Your task to perform on an android device: Open Wikipedia Image 0: 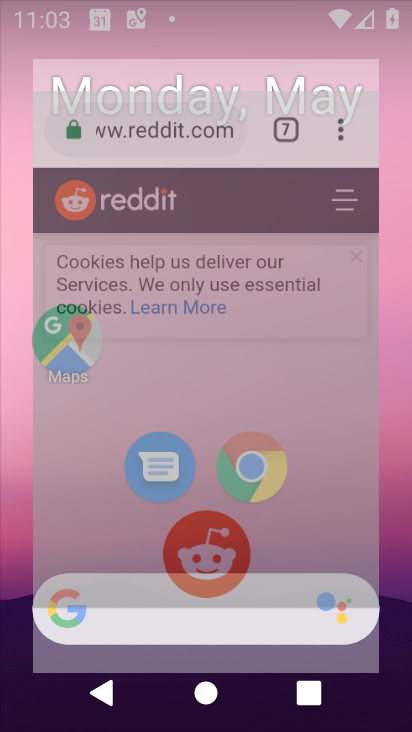
Step 0: drag from (261, 653) to (175, 105)
Your task to perform on an android device: Open Wikipedia Image 1: 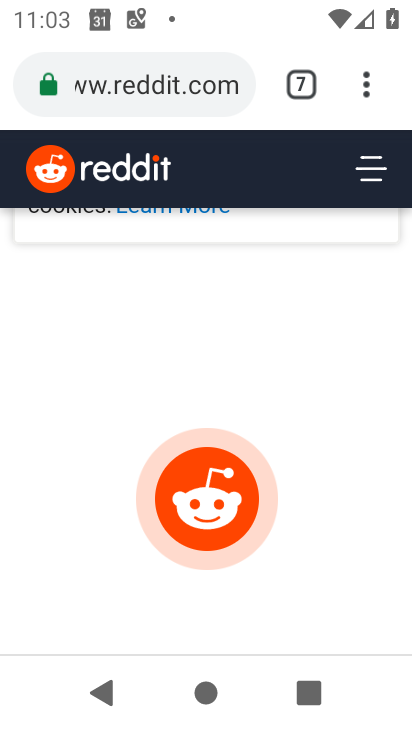
Step 1: press back button
Your task to perform on an android device: Open Wikipedia Image 2: 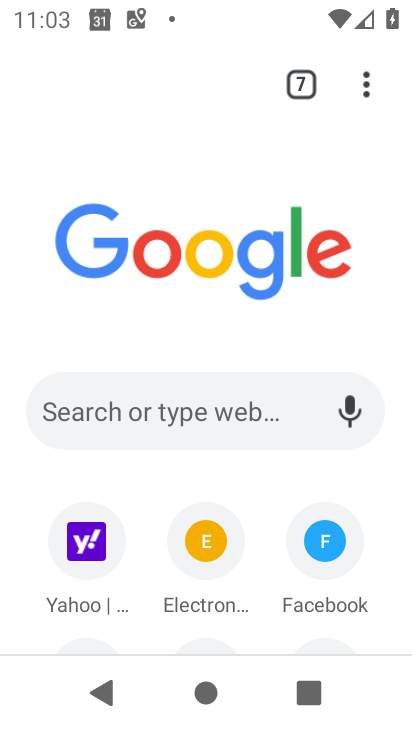
Step 2: drag from (354, 90) to (57, 155)
Your task to perform on an android device: Open Wikipedia Image 3: 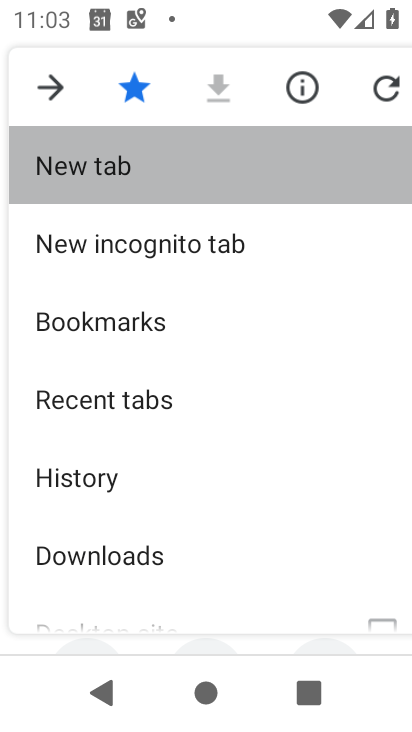
Step 3: click (57, 155)
Your task to perform on an android device: Open Wikipedia Image 4: 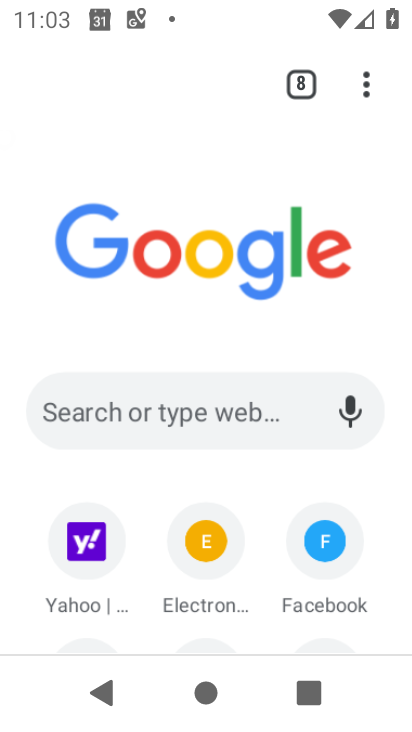
Step 4: click (60, 155)
Your task to perform on an android device: Open Wikipedia Image 5: 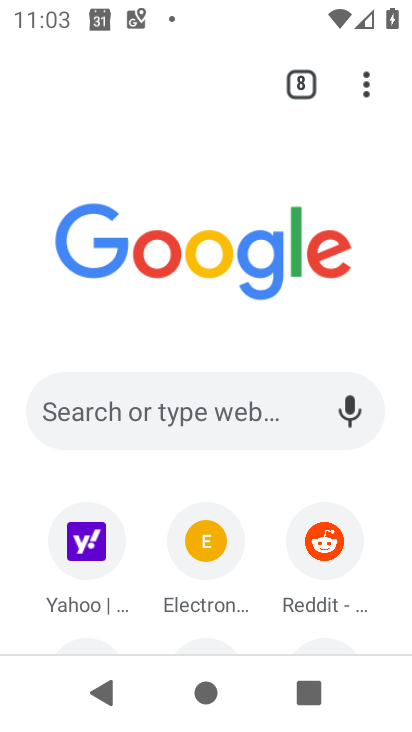
Step 5: drag from (263, 518) to (223, 170)
Your task to perform on an android device: Open Wikipedia Image 6: 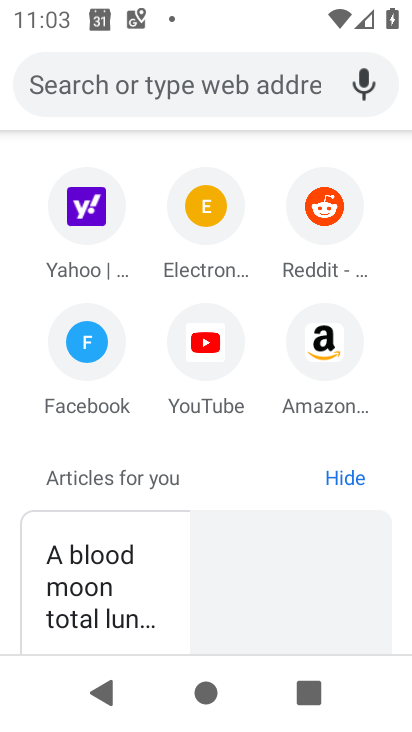
Step 6: drag from (271, 496) to (234, 179)
Your task to perform on an android device: Open Wikipedia Image 7: 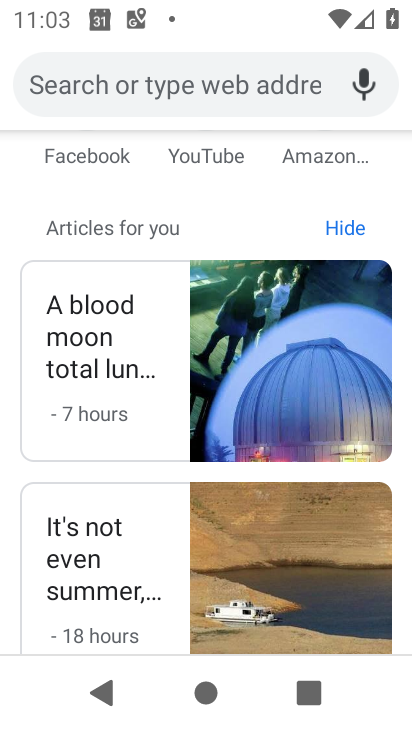
Step 7: drag from (158, 222) to (277, 627)
Your task to perform on an android device: Open Wikipedia Image 8: 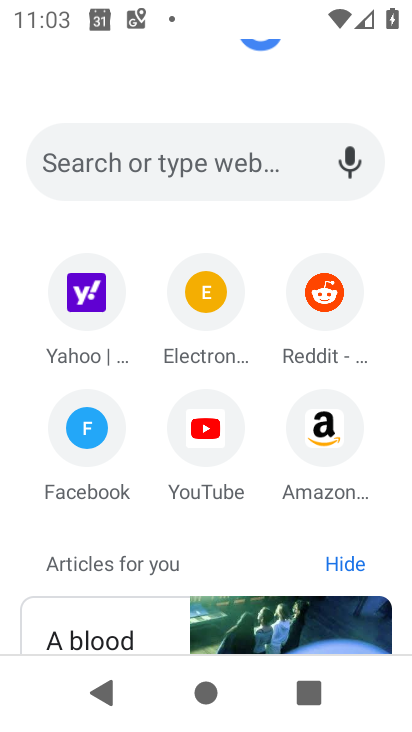
Step 8: drag from (256, 325) to (327, 570)
Your task to perform on an android device: Open Wikipedia Image 9: 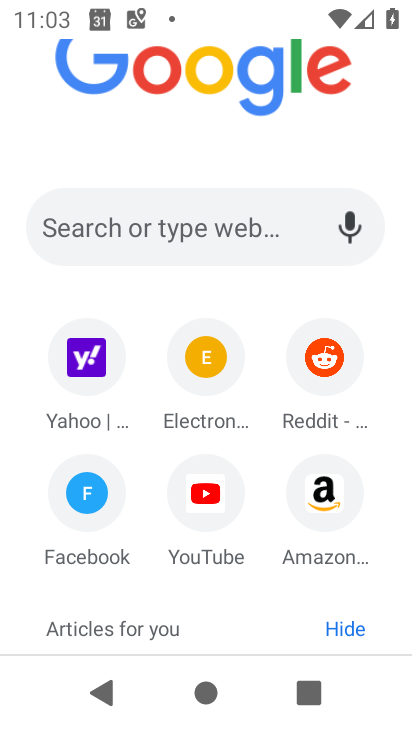
Step 9: click (87, 215)
Your task to perform on an android device: Open Wikipedia Image 10: 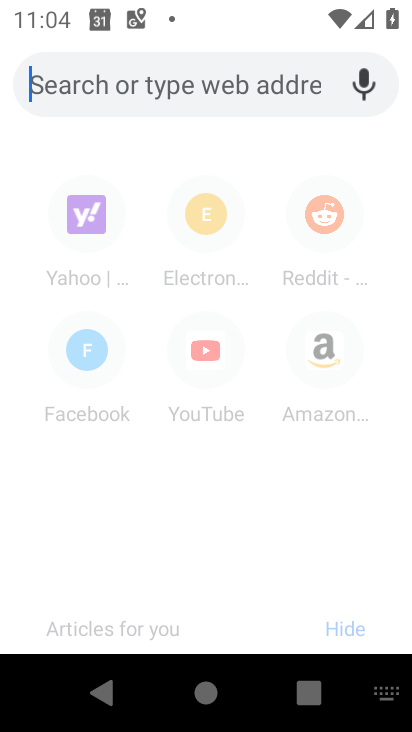
Step 10: type "www.wikipedia.com"
Your task to perform on an android device: Open Wikipedia Image 11: 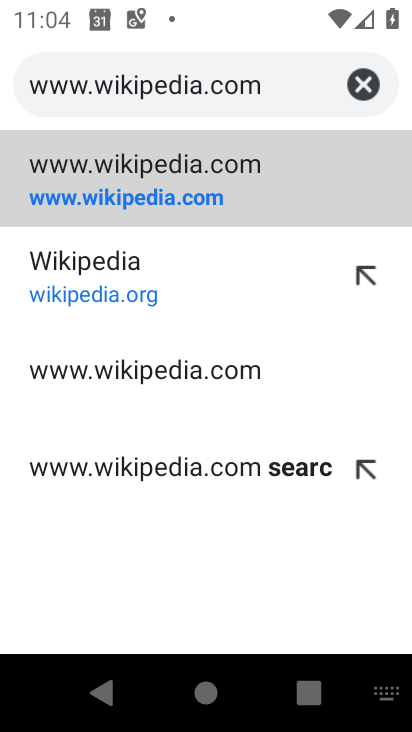
Step 11: click (142, 192)
Your task to perform on an android device: Open Wikipedia Image 12: 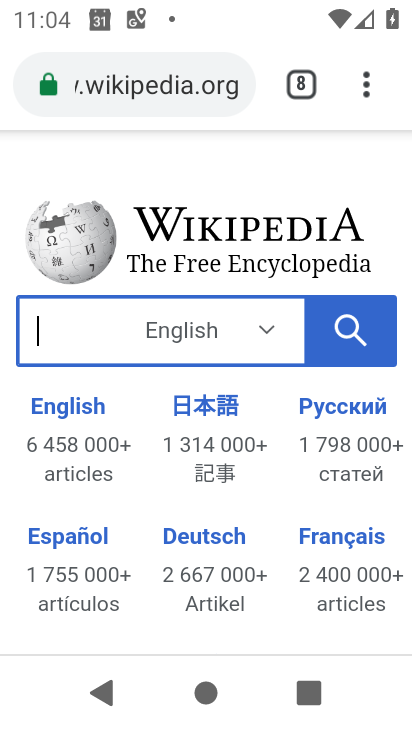
Step 12: task complete